Your task to perform on an android device: Go to Reddit.com Image 0: 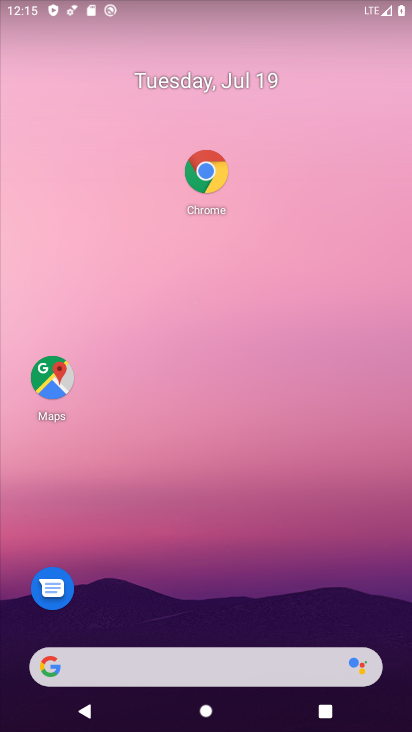
Step 0: click (181, 676)
Your task to perform on an android device: Go to Reddit.com Image 1: 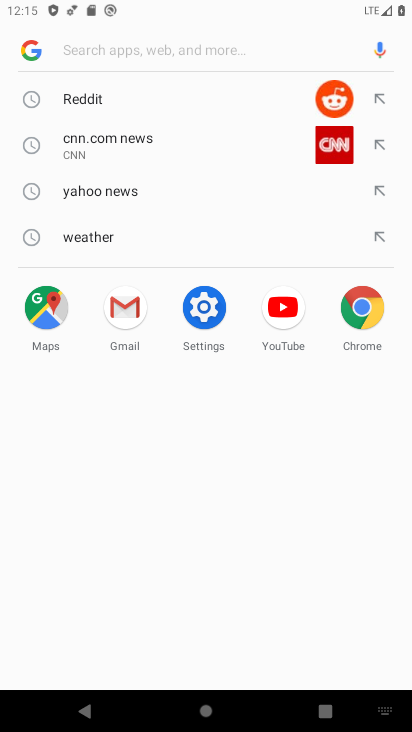
Step 1: click (190, 106)
Your task to perform on an android device: Go to Reddit.com Image 2: 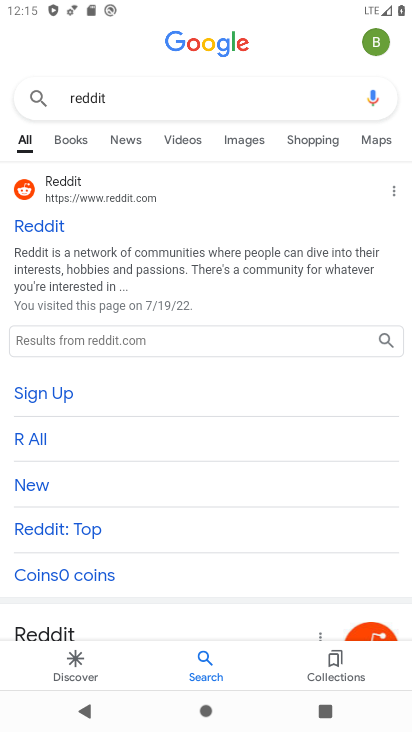
Step 2: task complete